Your task to perform on an android device: turn on the 24-hour format for clock Image 0: 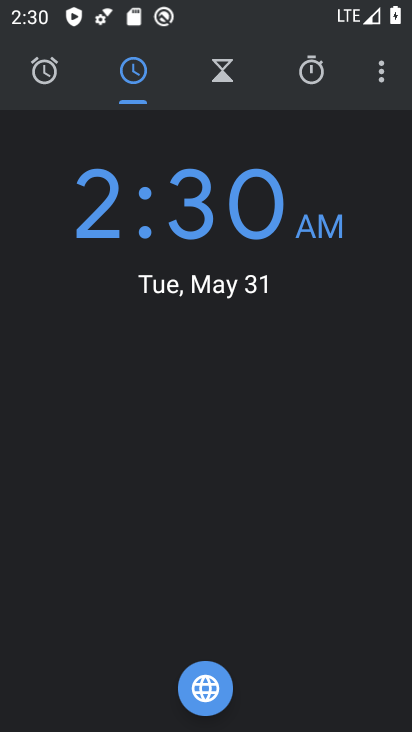
Step 0: click (385, 88)
Your task to perform on an android device: turn on the 24-hour format for clock Image 1: 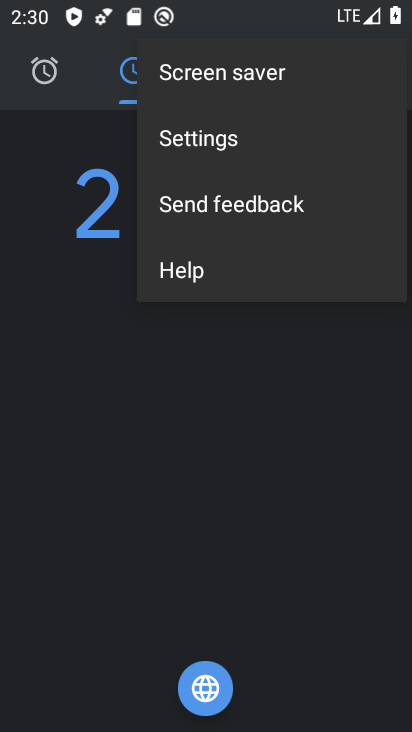
Step 1: click (306, 146)
Your task to perform on an android device: turn on the 24-hour format for clock Image 2: 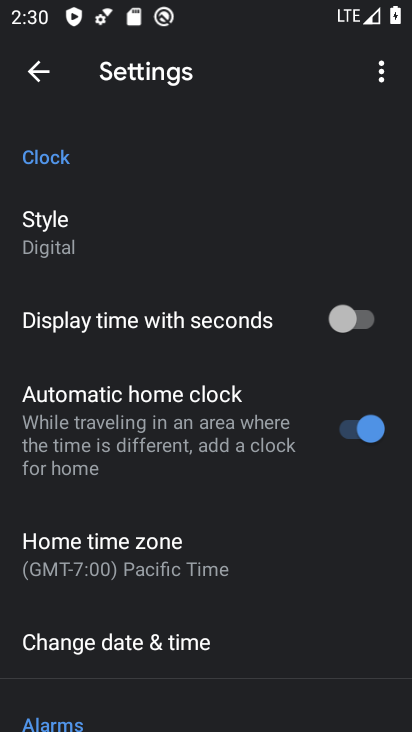
Step 2: drag from (243, 616) to (227, 266)
Your task to perform on an android device: turn on the 24-hour format for clock Image 3: 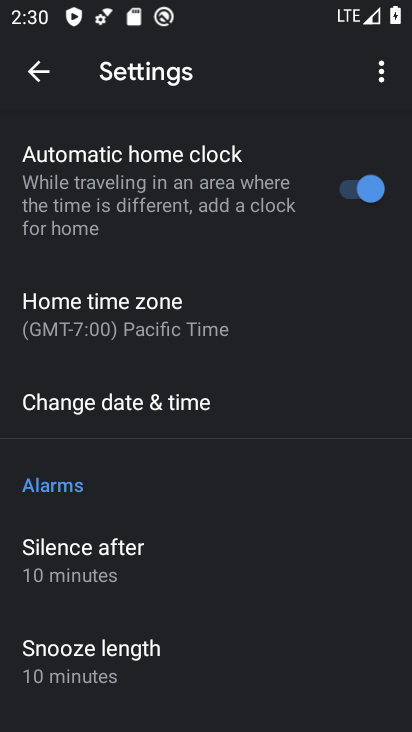
Step 3: click (235, 403)
Your task to perform on an android device: turn on the 24-hour format for clock Image 4: 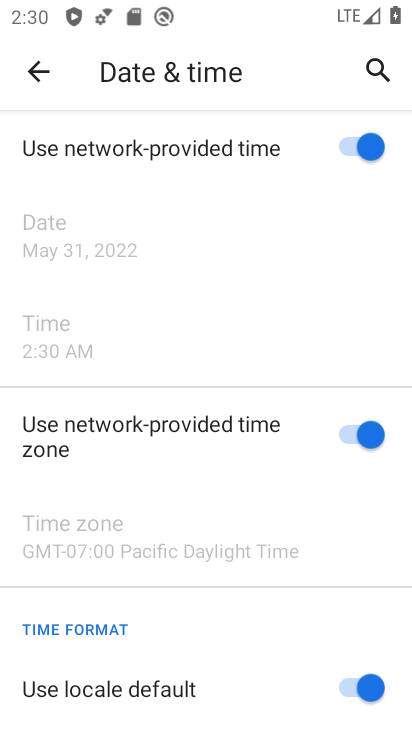
Step 4: drag from (220, 583) to (221, 218)
Your task to perform on an android device: turn on the 24-hour format for clock Image 5: 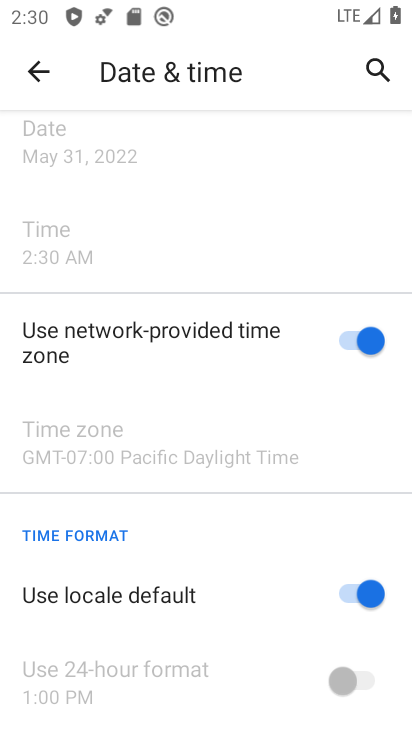
Step 5: click (357, 594)
Your task to perform on an android device: turn on the 24-hour format for clock Image 6: 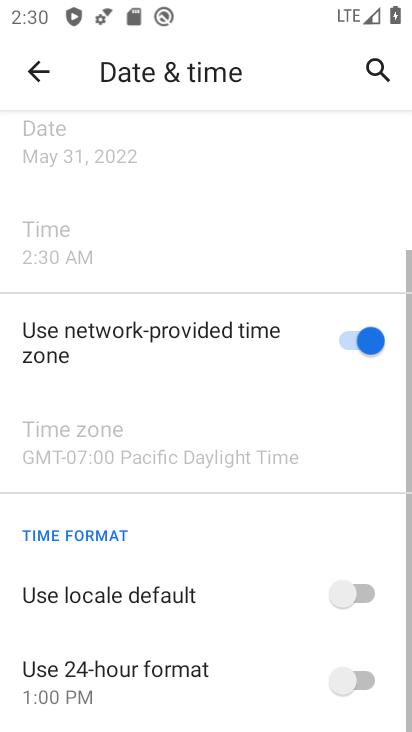
Step 6: click (354, 685)
Your task to perform on an android device: turn on the 24-hour format for clock Image 7: 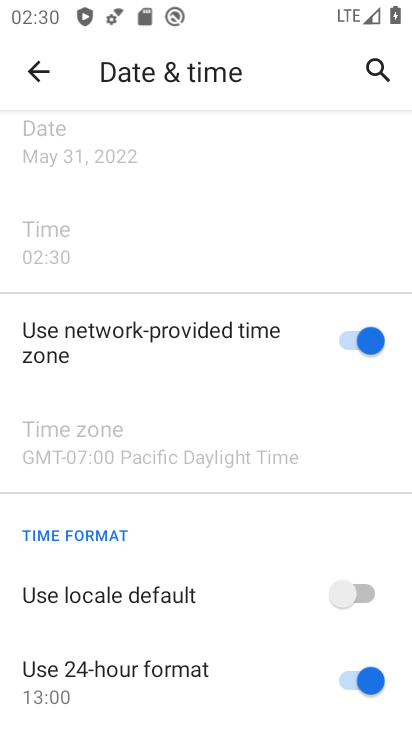
Step 7: task complete